Your task to perform on an android device: refresh tabs in the chrome app Image 0: 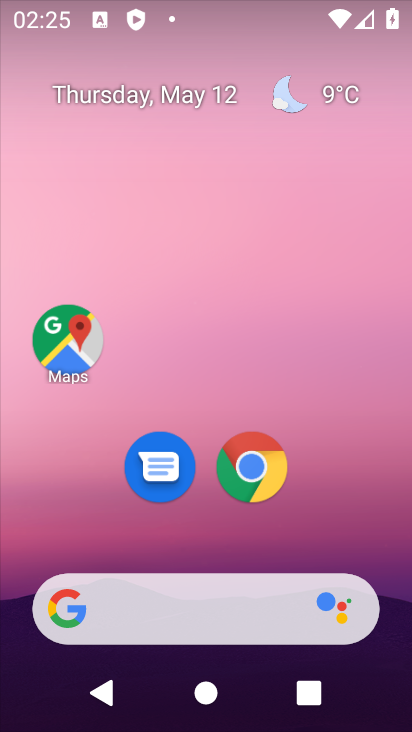
Step 0: drag from (287, 536) to (318, 236)
Your task to perform on an android device: refresh tabs in the chrome app Image 1: 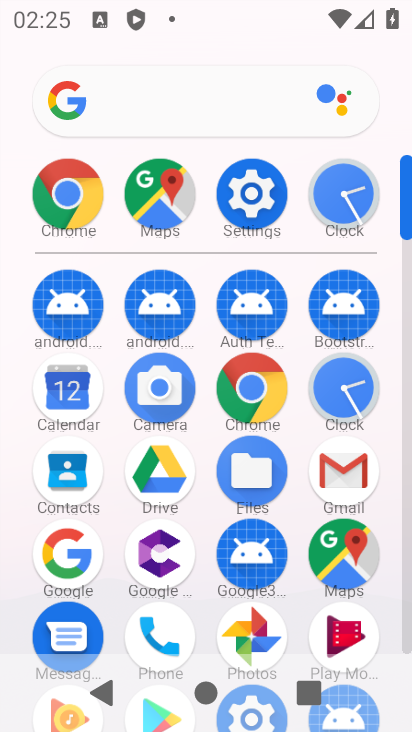
Step 1: click (69, 186)
Your task to perform on an android device: refresh tabs in the chrome app Image 2: 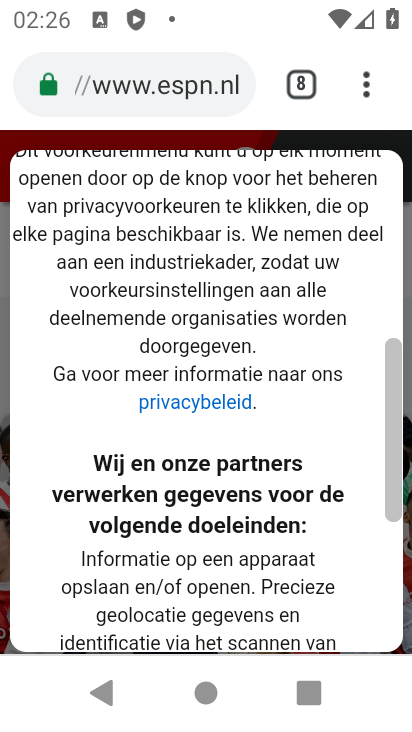
Step 2: click (347, 80)
Your task to perform on an android device: refresh tabs in the chrome app Image 3: 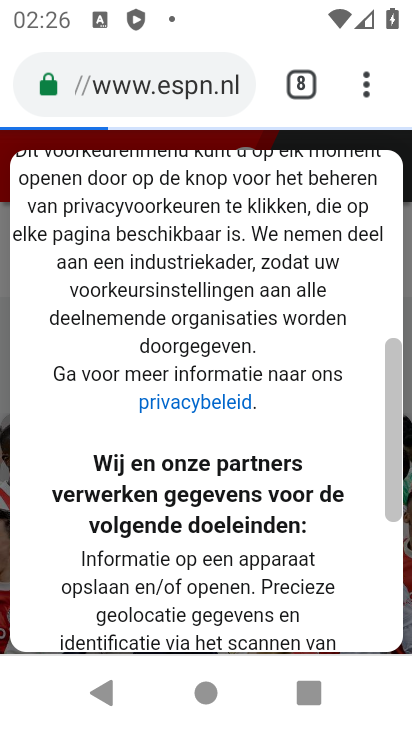
Step 3: click (380, 81)
Your task to perform on an android device: refresh tabs in the chrome app Image 4: 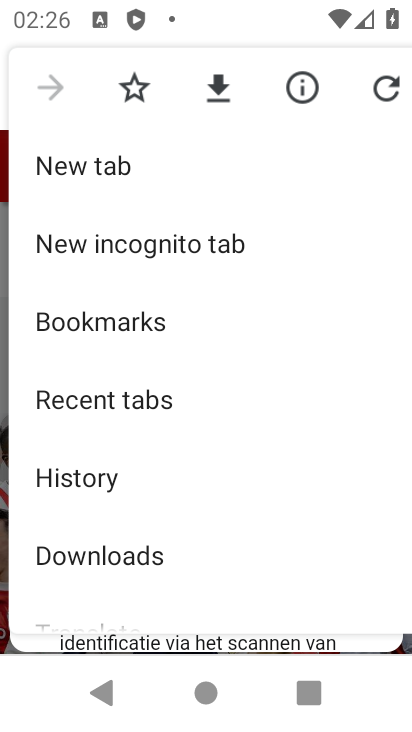
Step 4: click (389, 84)
Your task to perform on an android device: refresh tabs in the chrome app Image 5: 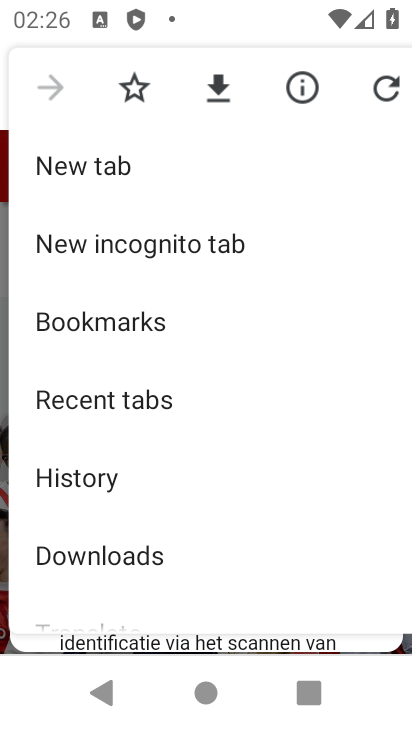
Step 5: task complete